Your task to perform on an android device: open sync settings in chrome Image 0: 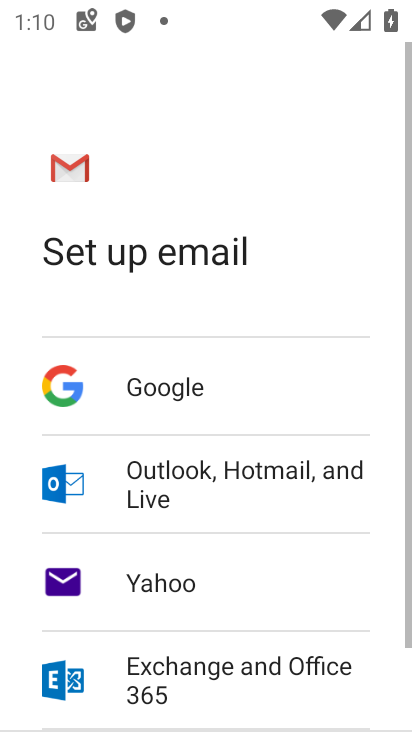
Step 0: press home button
Your task to perform on an android device: open sync settings in chrome Image 1: 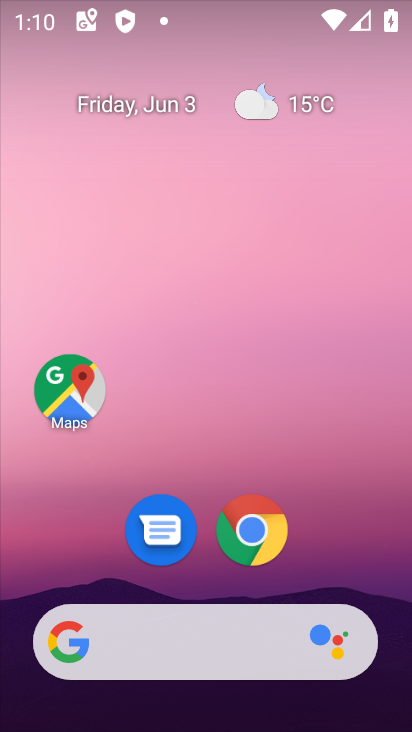
Step 1: click (272, 527)
Your task to perform on an android device: open sync settings in chrome Image 2: 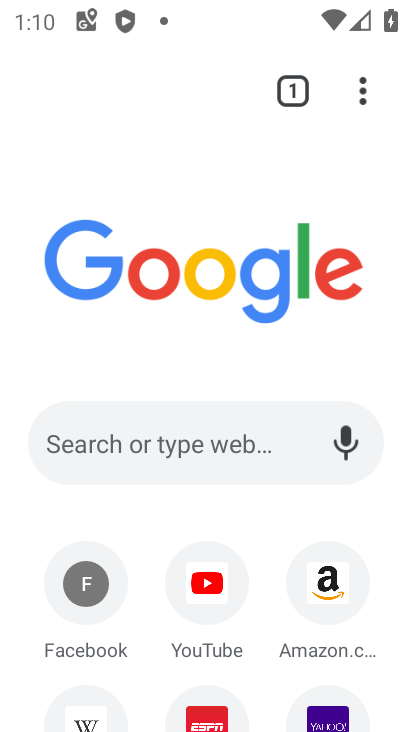
Step 2: drag from (365, 99) to (248, 544)
Your task to perform on an android device: open sync settings in chrome Image 3: 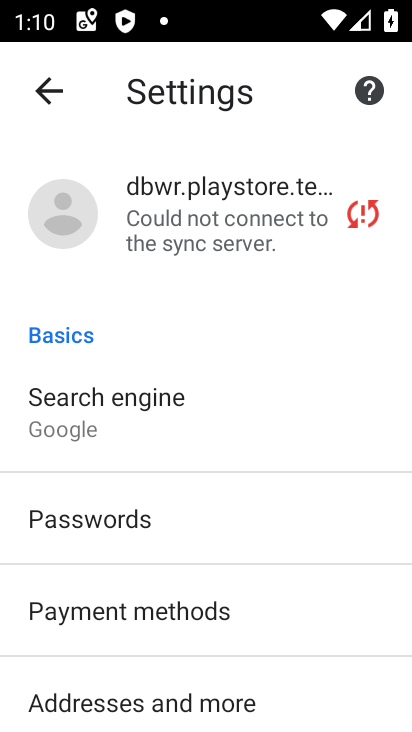
Step 3: click (263, 207)
Your task to perform on an android device: open sync settings in chrome Image 4: 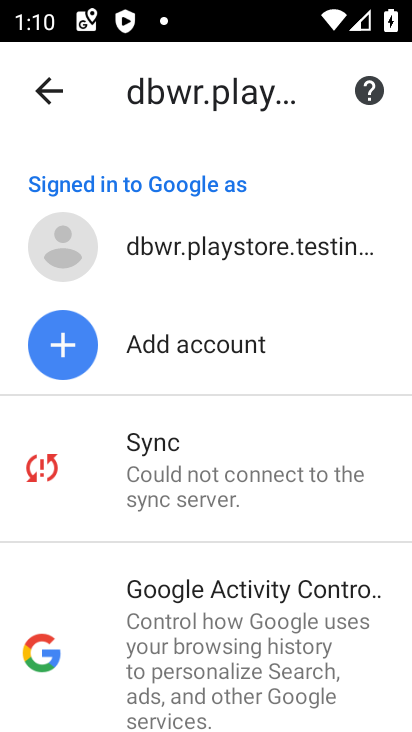
Step 4: click (211, 472)
Your task to perform on an android device: open sync settings in chrome Image 5: 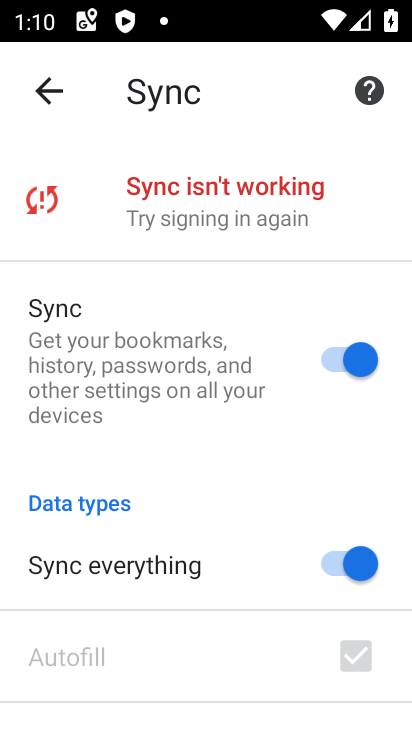
Step 5: task complete